Your task to perform on an android device: Show me popular games on the Play Store Image 0: 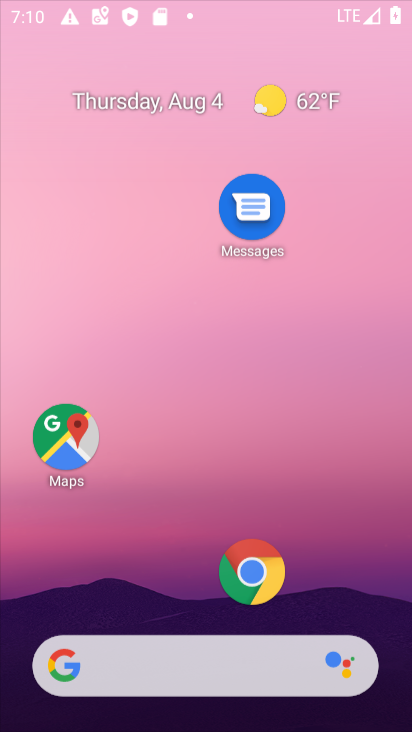
Step 0: press home button
Your task to perform on an android device: Show me popular games on the Play Store Image 1: 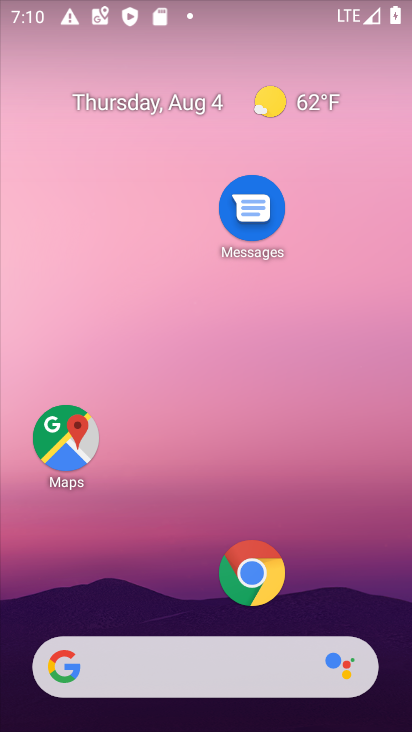
Step 1: drag from (209, 616) to (231, 31)
Your task to perform on an android device: Show me popular games on the Play Store Image 2: 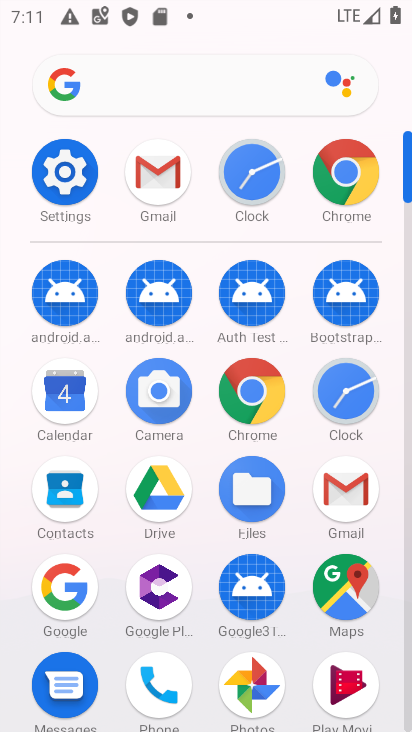
Step 2: drag from (311, 623) to (249, 16)
Your task to perform on an android device: Show me popular games on the Play Store Image 3: 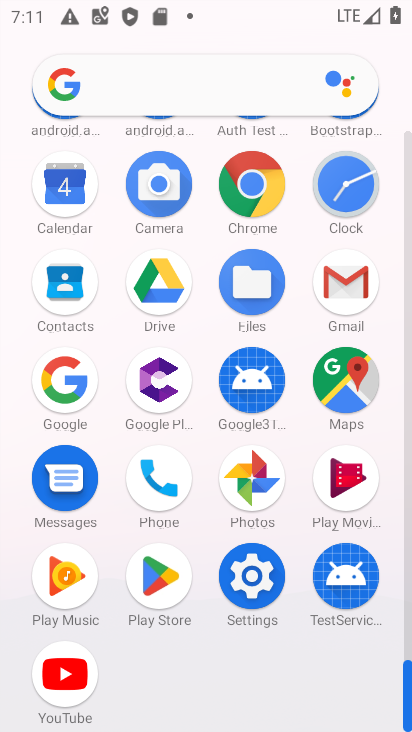
Step 3: click (150, 573)
Your task to perform on an android device: Show me popular games on the Play Store Image 4: 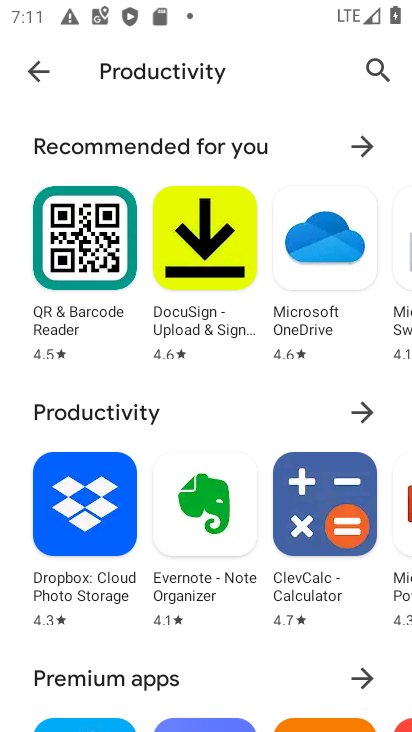
Step 4: click (40, 68)
Your task to perform on an android device: Show me popular games on the Play Store Image 5: 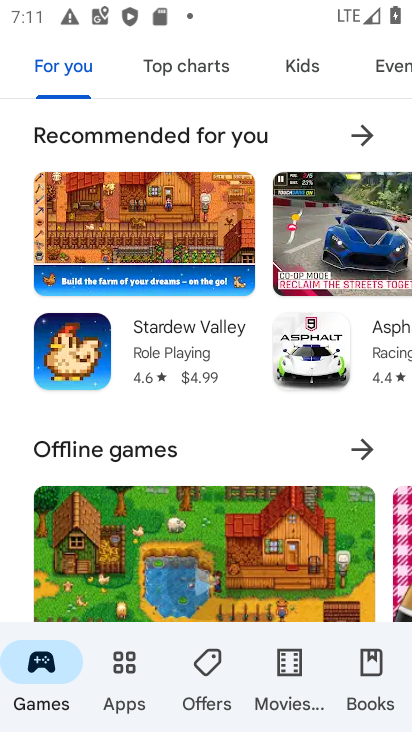
Step 5: click (54, 642)
Your task to perform on an android device: Show me popular games on the Play Store Image 6: 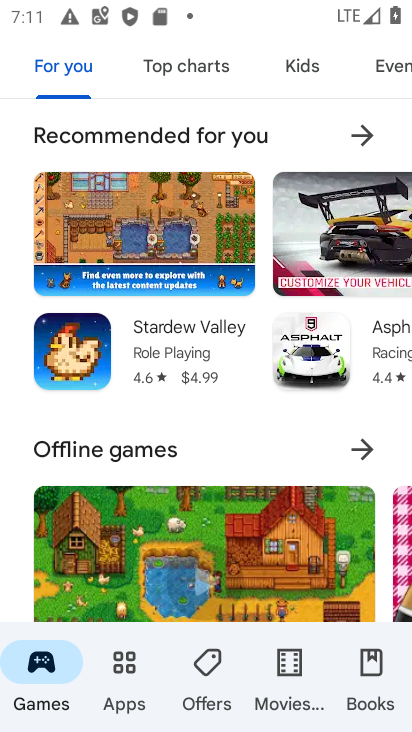
Step 6: task complete